Your task to perform on an android device: turn on the 24-hour format for clock Image 0: 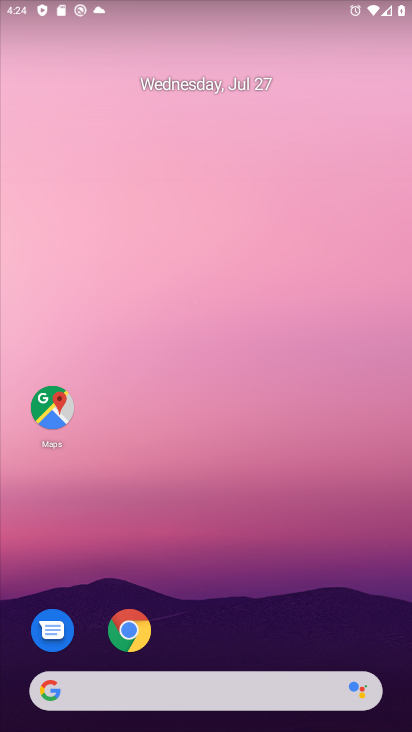
Step 0: drag from (202, 692) to (206, 43)
Your task to perform on an android device: turn on the 24-hour format for clock Image 1: 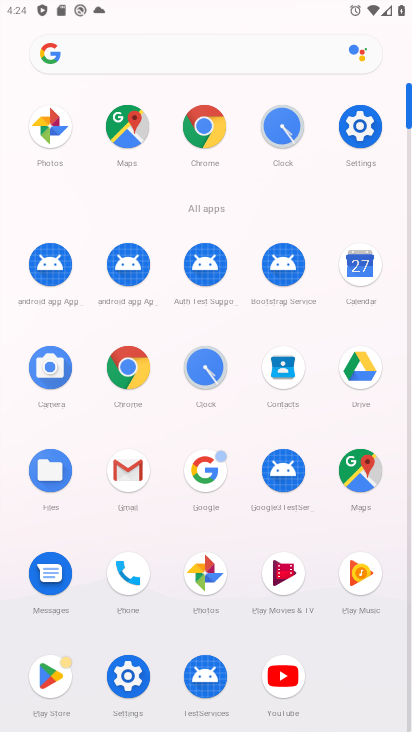
Step 1: click (281, 125)
Your task to perform on an android device: turn on the 24-hour format for clock Image 2: 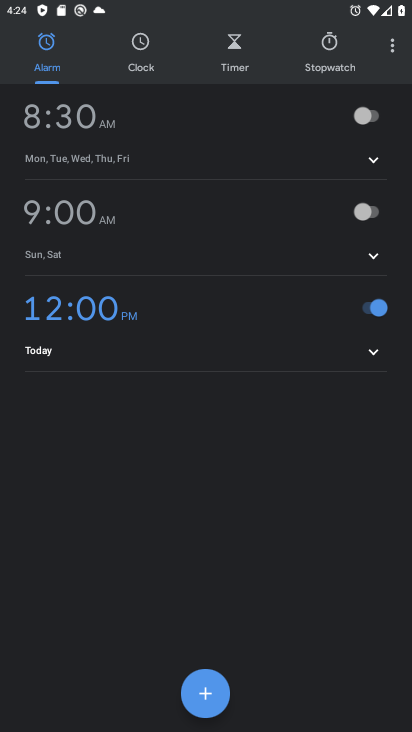
Step 2: click (392, 43)
Your task to perform on an android device: turn on the 24-hour format for clock Image 3: 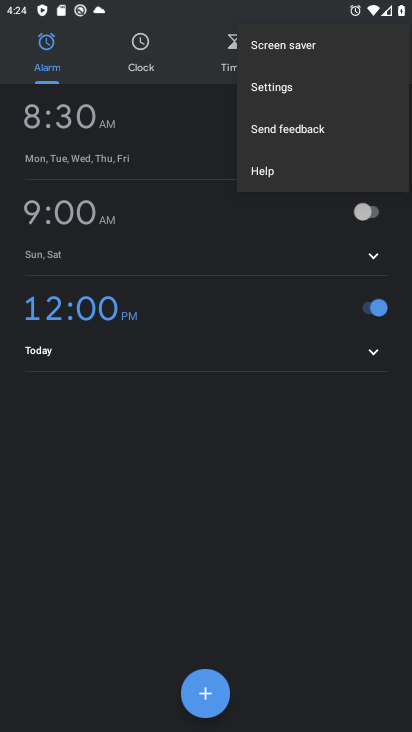
Step 3: click (278, 87)
Your task to perform on an android device: turn on the 24-hour format for clock Image 4: 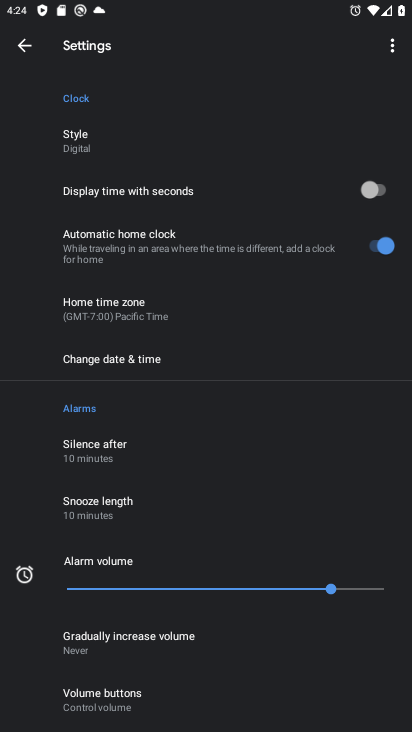
Step 4: click (150, 357)
Your task to perform on an android device: turn on the 24-hour format for clock Image 5: 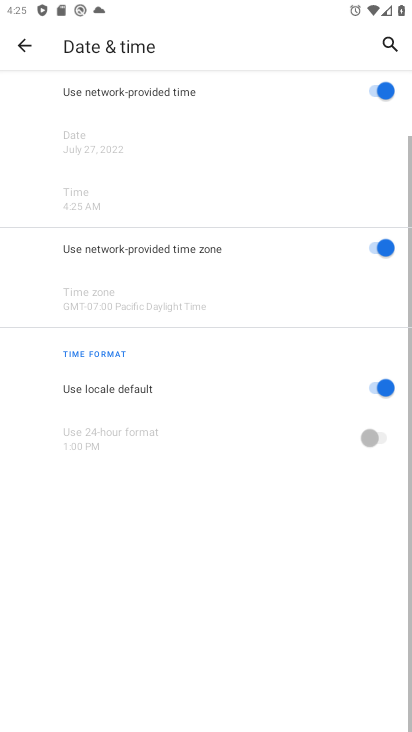
Step 5: click (371, 383)
Your task to perform on an android device: turn on the 24-hour format for clock Image 6: 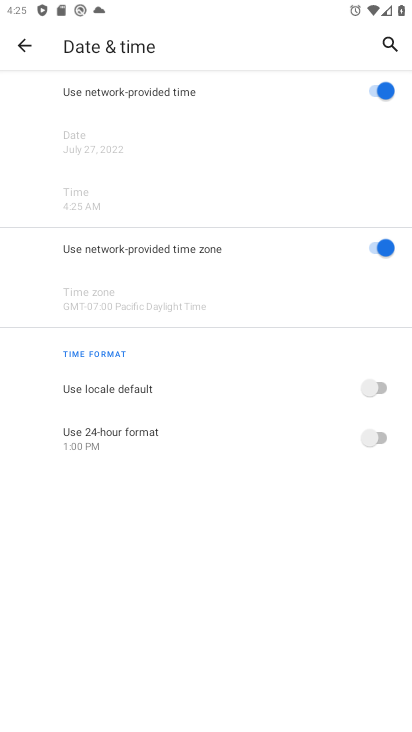
Step 6: click (380, 431)
Your task to perform on an android device: turn on the 24-hour format for clock Image 7: 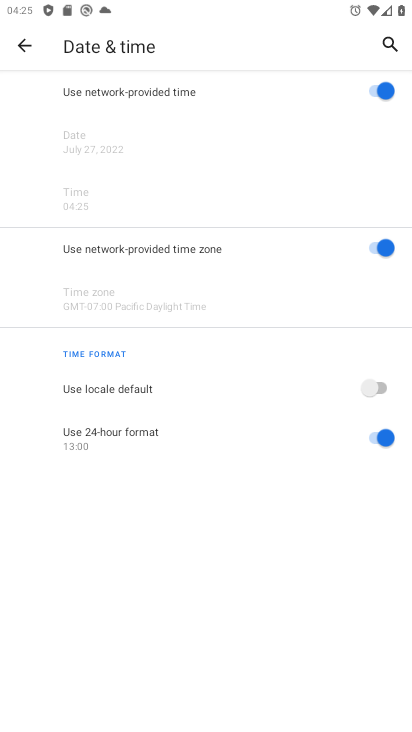
Step 7: task complete